Your task to perform on an android device: open device folders in google photos Image 0: 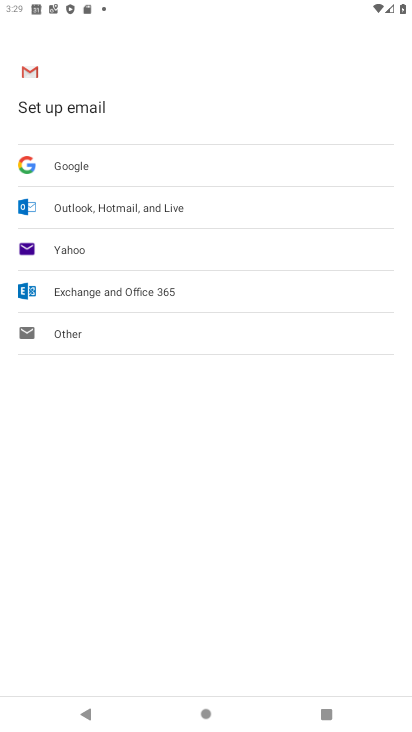
Step 0: press home button
Your task to perform on an android device: open device folders in google photos Image 1: 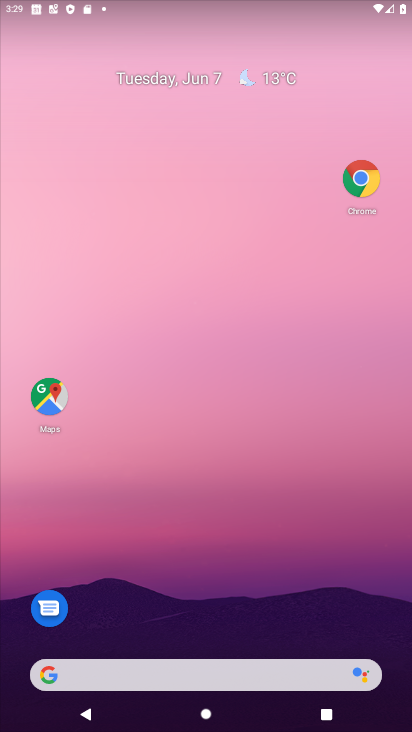
Step 1: drag from (167, 641) to (250, 197)
Your task to perform on an android device: open device folders in google photos Image 2: 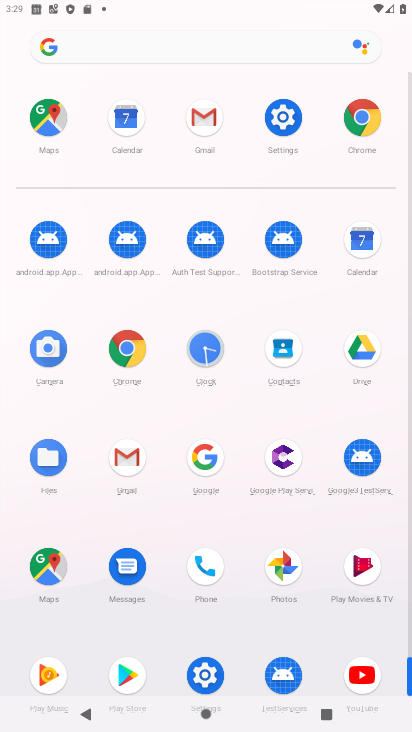
Step 2: click (280, 580)
Your task to perform on an android device: open device folders in google photos Image 3: 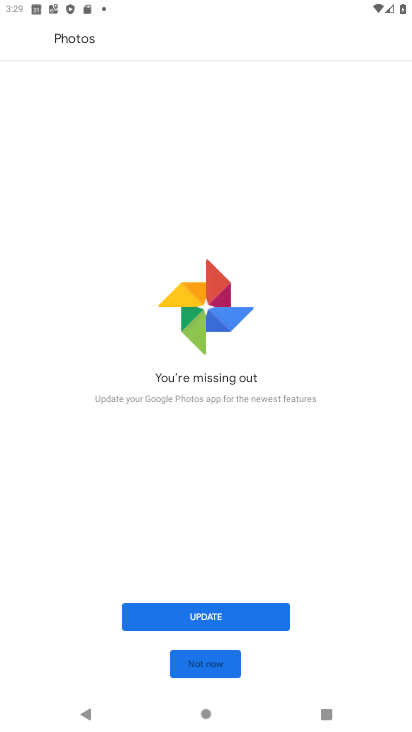
Step 3: click (230, 620)
Your task to perform on an android device: open device folders in google photos Image 4: 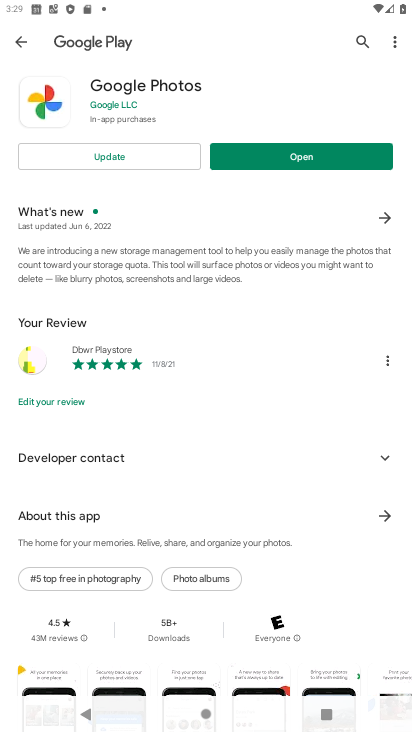
Step 4: click (130, 155)
Your task to perform on an android device: open device folders in google photos Image 5: 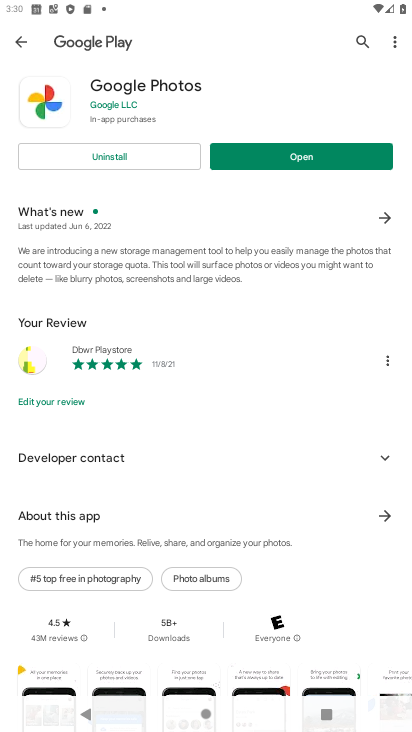
Step 5: drag from (141, 157) to (362, 403)
Your task to perform on an android device: open device folders in google photos Image 6: 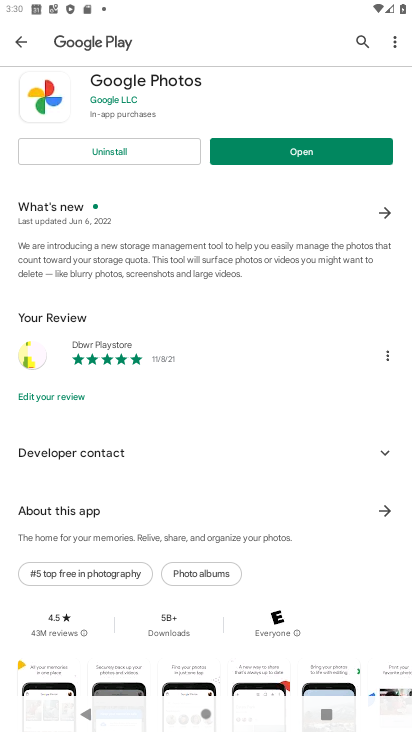
Step 6: click (327, 152)
Your task to perform on an android device: open device folders in google photos Image 7: 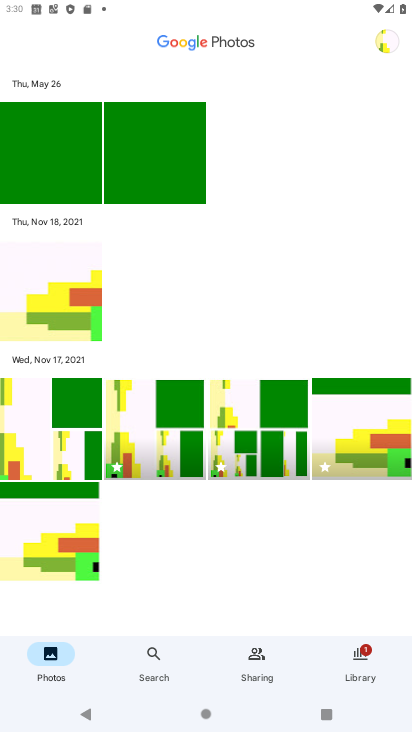
Step 7: click (152, 664)
Your task to perform on an android device: open device folders in google photos Image 8: 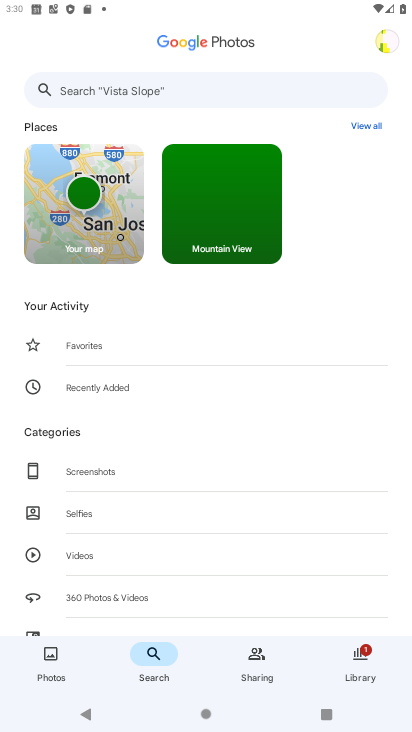
Step 8: drag from (122, 555) to (250, 208)
Your task to perform on an android device: open device folders in google photos Image 9: 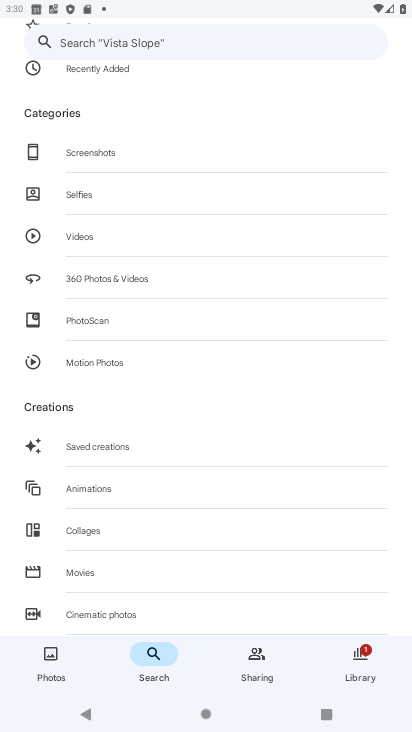
Step 9: drag from (169, 556) to (244, 257)
Your task to perform on an android device: open device folders in google photos Image 10: 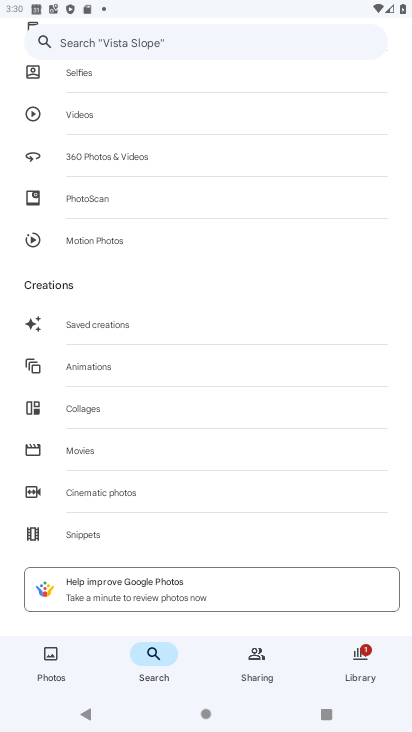
Step 10: click (268, 671)
Your task to perform on an android device: open device folders in google photos Image 11: 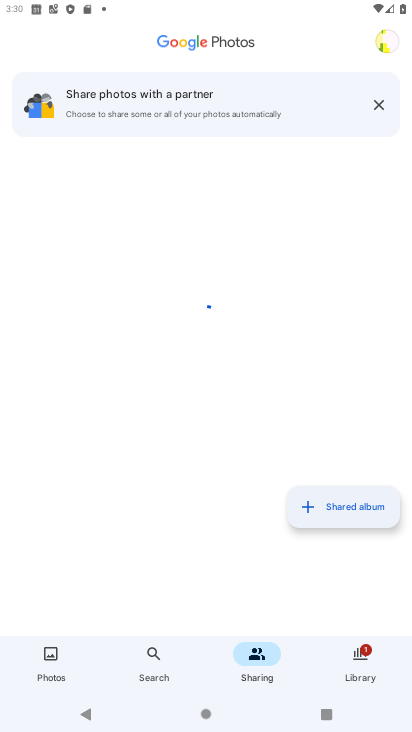
Step 11: click (319, 671)
Your task to perform on an android device: open device folders in google photos Image 12: 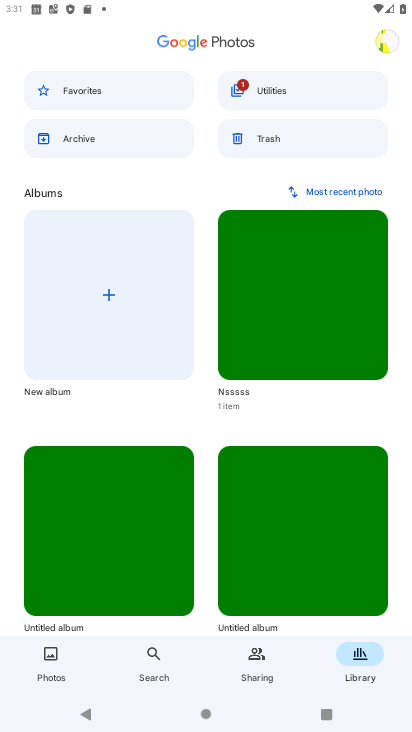
Step 12: task complete